Your task to perform on an android device: Find coffee shops on Maps Image 0: 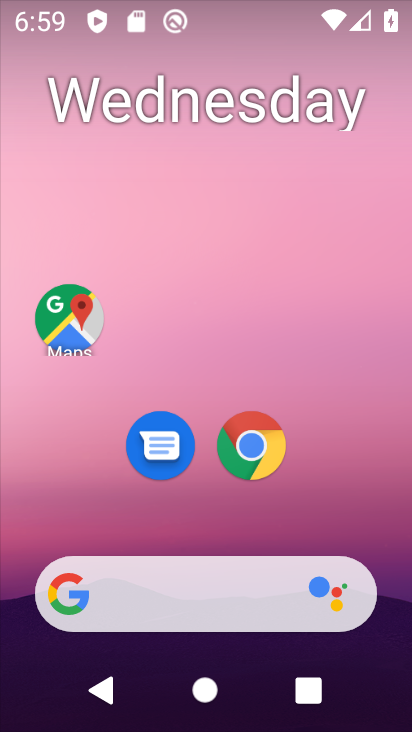
Step 0: click (69, 319)
Your task to perform on an android device: Find coffee shops on Maps Image 1: 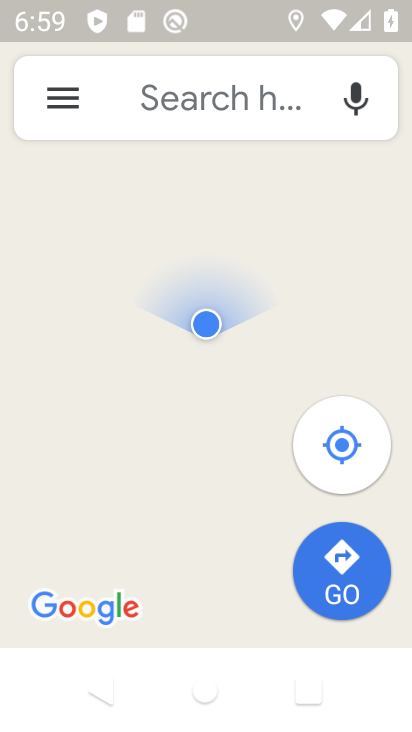
Step 1: click (194, 93)
Your task to perform on an android device: Find coffee shops on Maps Image 2: 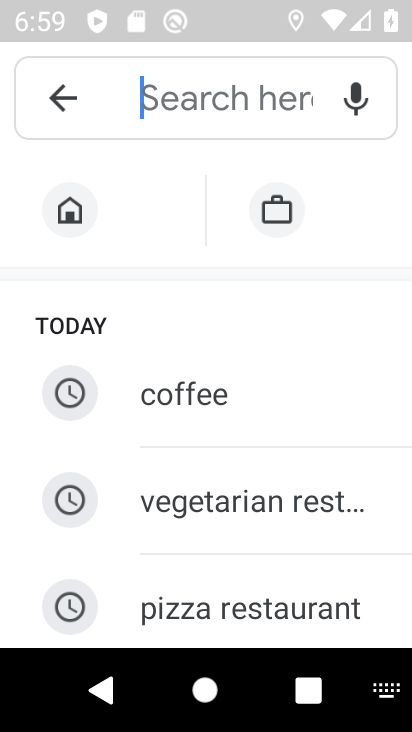
Step 2: type "coffee shops"
Your task to perform on an android device: Find coffee shops on Maps Image 3: 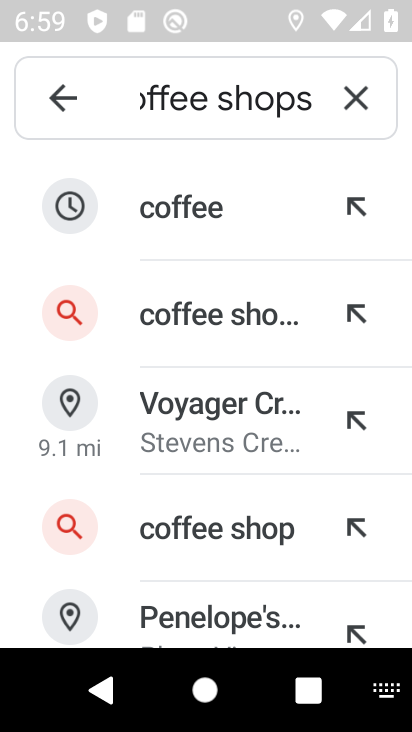
Step 3: click (275, 323)
Your task to perform on an android device: Find coffee shops on Maps Image 4: 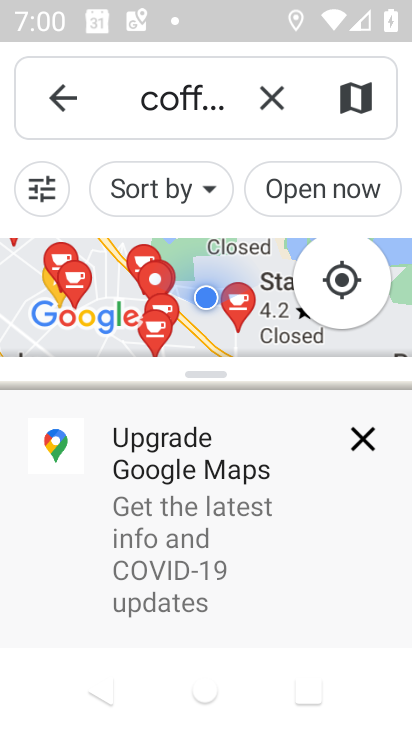
Step 4: click (361, 438)
Your task to perform on an android device: Find coffee shops on Maps Image 5: 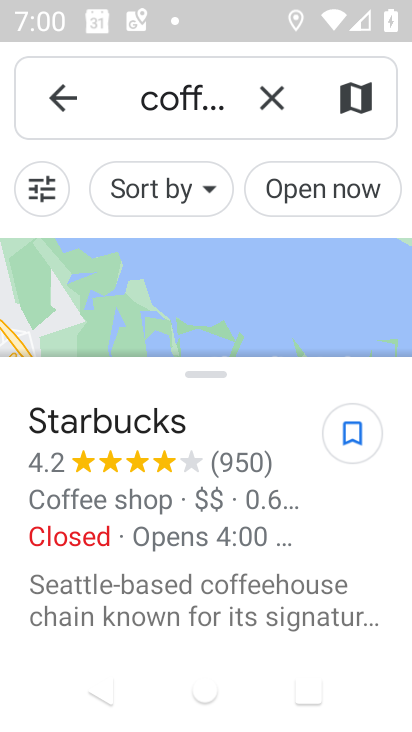
Step 5: task complete